Your task to perform on an android device: Open calendar and show me the third week of next month Image 0: 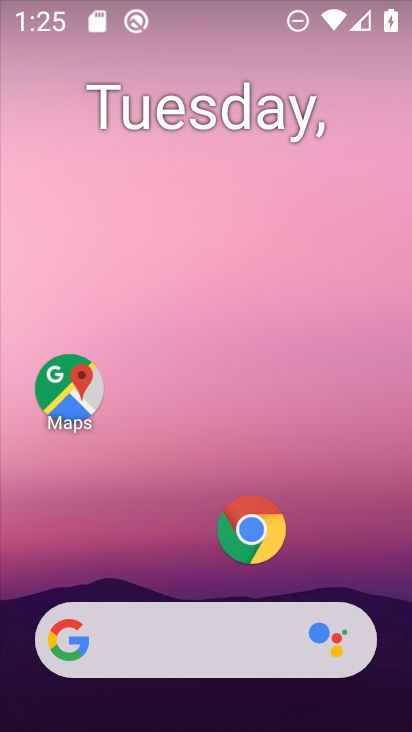
Step 0: drag from (178, 680) to (293, 63)
Your task to perform on an android device: Open calendar and show me the third week of next month Image 1: 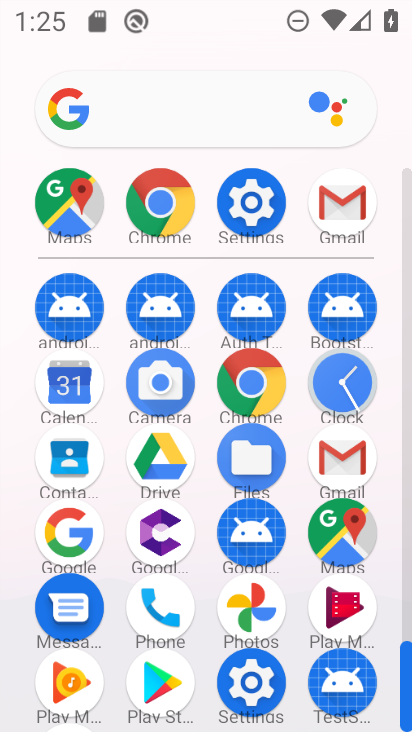
Step 1: click (66, 385)
Your task to perform on an android device: Open calendar and show me the third week of next month Image 2: 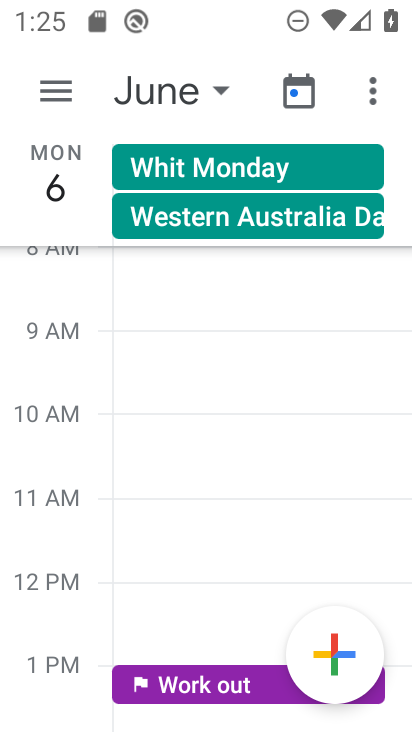
Step 2: click (42, 99)
Your task to perform on an android device: Open calendar and show me the third week of next month Image 3: 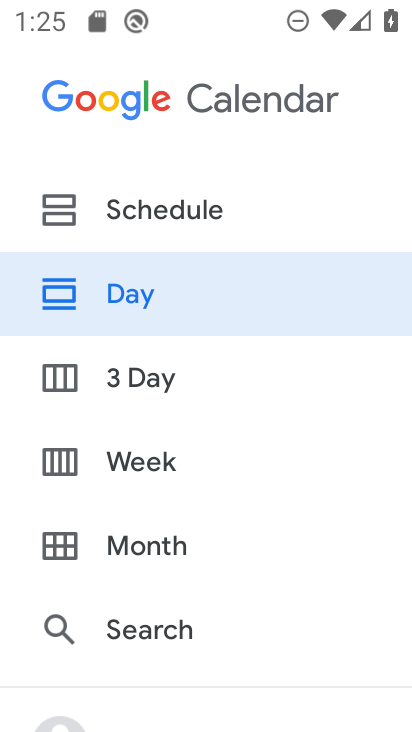
Step 3: click (140, 540)
Your task to perform on an android device: Open calendar and show me the third week of next month Image 4: 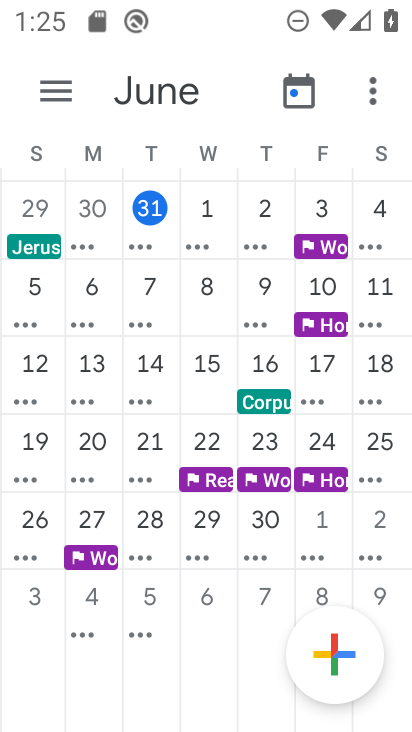
Step 4: click (100, 384)
Your task to perform on an android device: Open calendar and show me the third week of next month Image 5: 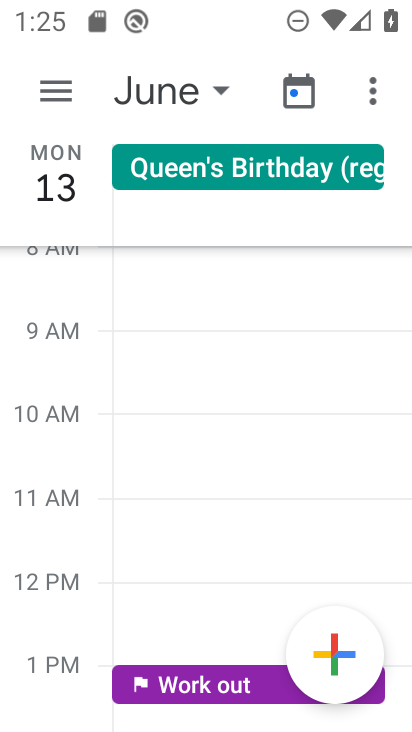
Step 5: task complete